Your task to perform on an android device: Go to eBay Image 0: 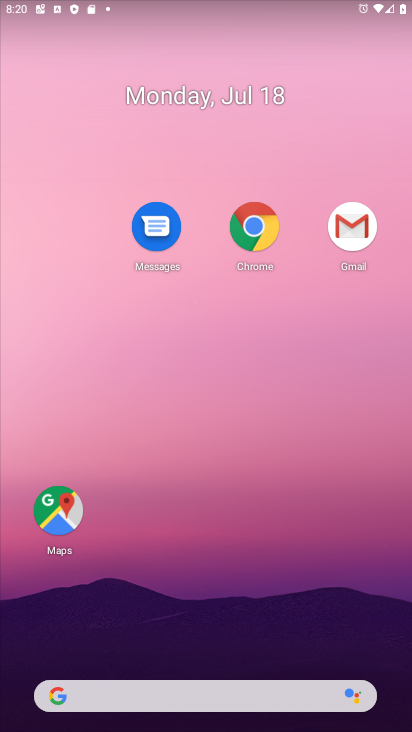
Step 0: press home button
Your task to perform on an android device: Go to eBay Image 1: 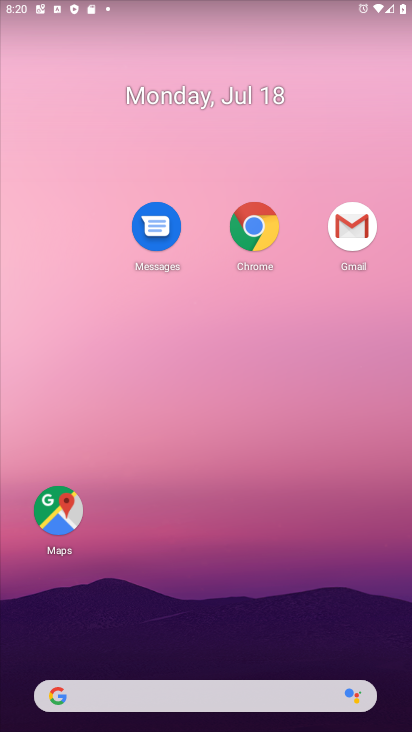
Step 1: click (250, 218)
Your task to perform on an android device: Go to eBay Image 2: 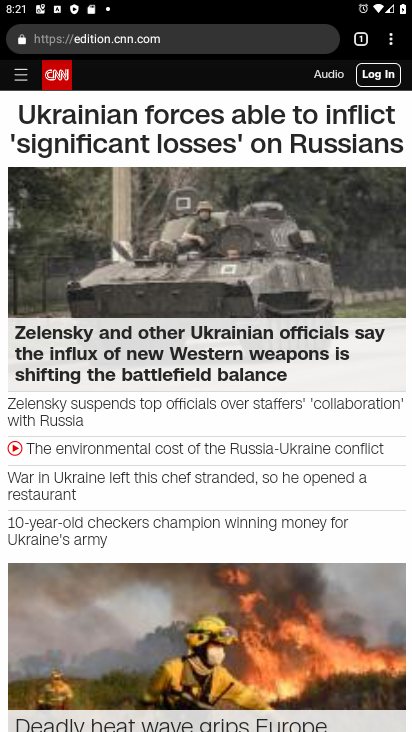
Step 2: click (355, 37)
Your task to perform on an android device: Go to eBay Image 3: 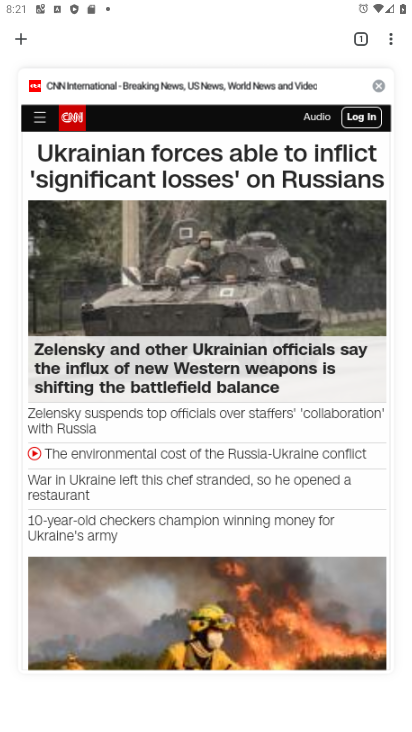
Step 3: click (21, 36)
Your task to perform on an android device: Go to eBay Image 4: 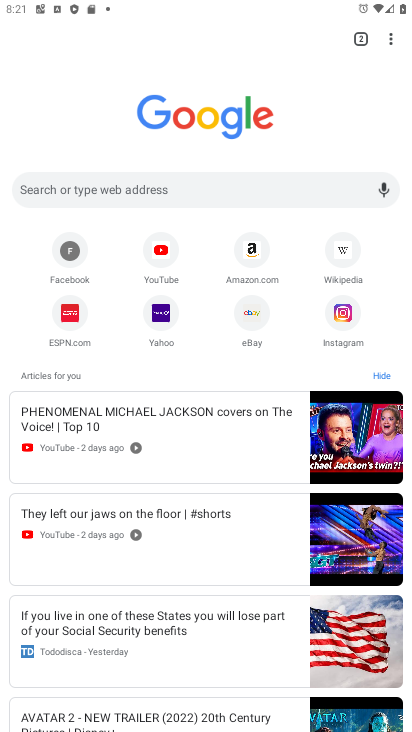
Step 4: click (251, 305)
Your task to perform on an android device: Go to eBay Image 5: 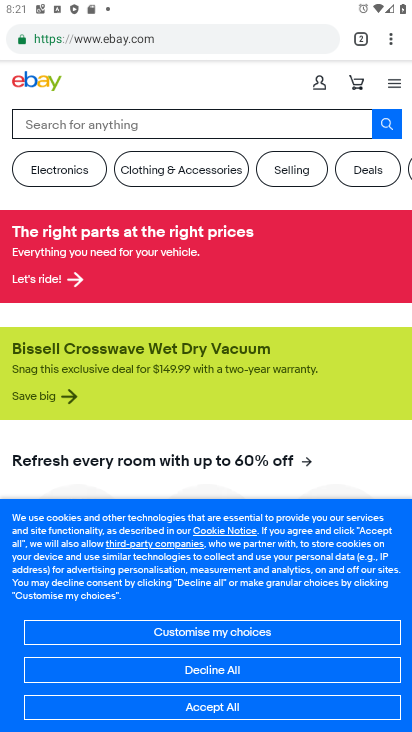
Step 5: click (225, 709)
Your task to perform on an android device: Go to eBay Image 6: 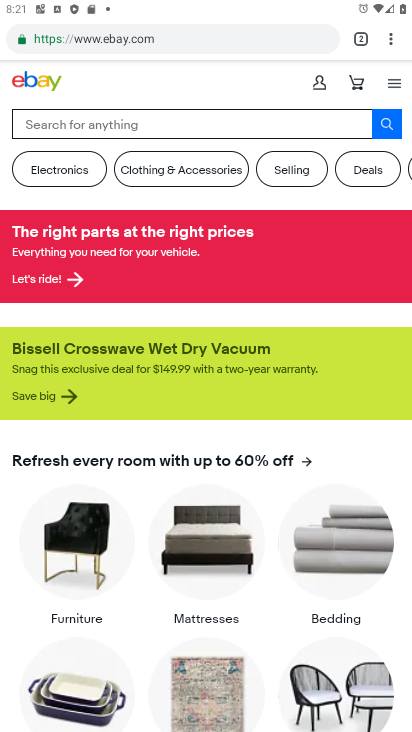
Step 6: task complete